Your task to perform on an android device: open device folders in google photos Image 0: 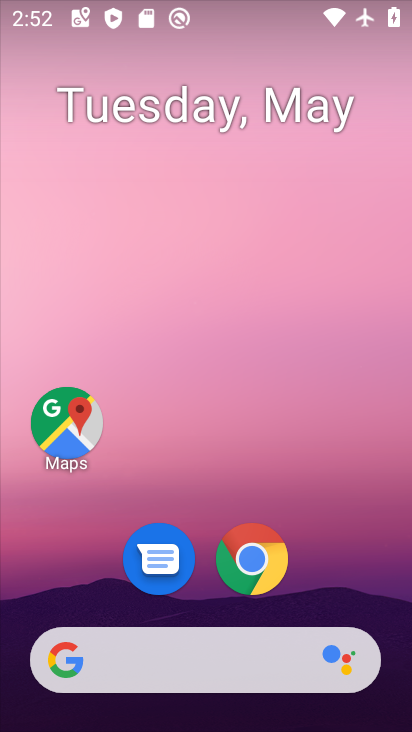
Step 0: drag from (132, 659) to (287, 172)
Your task to perform on an android device: open device folders in google photos Image 1: 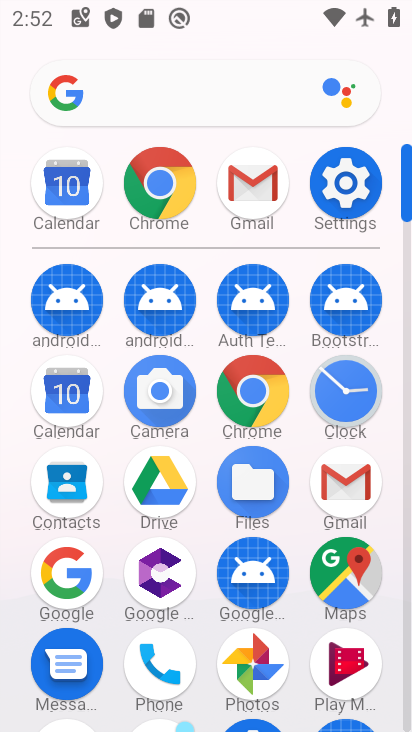
Step 1: click (259, 656)
Your task to perform on an android device: open device folders in google photos Image 2: 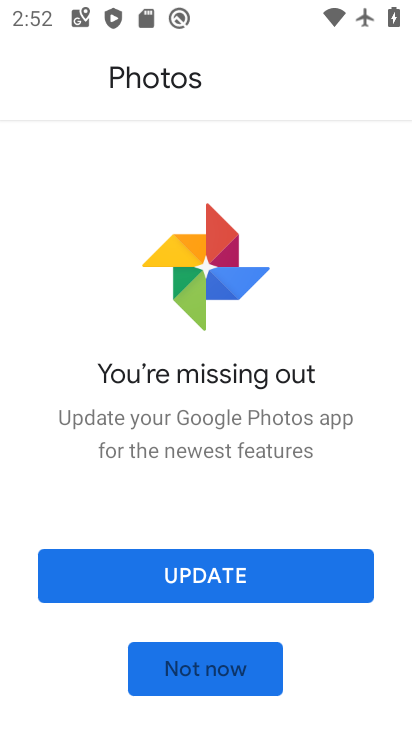
Step 2: click (223, 583)
Your task to perform on an android device: open device folders in google photos Image 3: 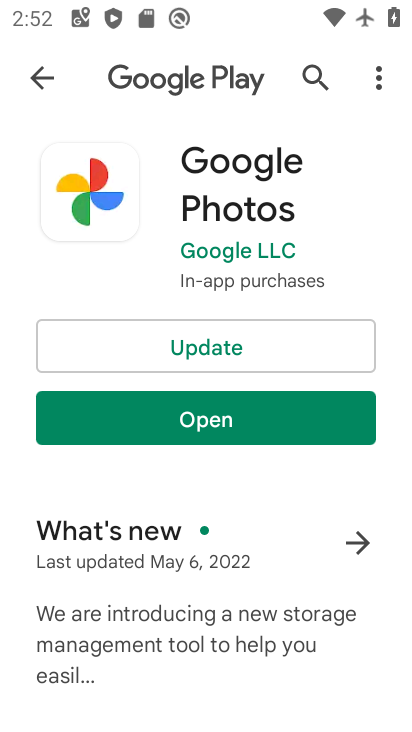
Step 3: click (219, 419)
Your task to perform on an android device: open device folders in google photos Image 4: 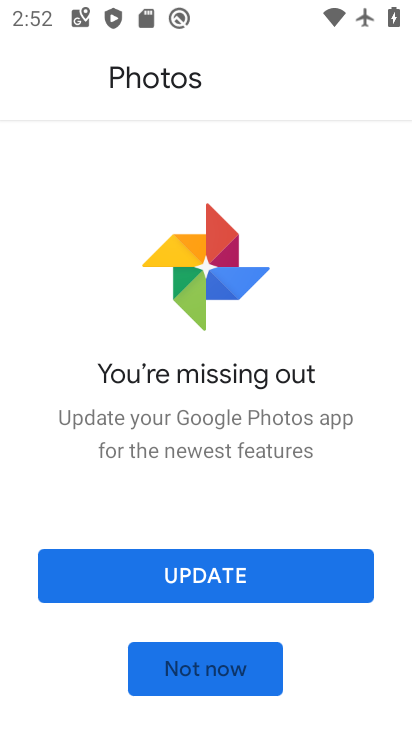
Step 4: click (204, 574)
Your task to perform on an android device: open device folders in google photos Image 5: 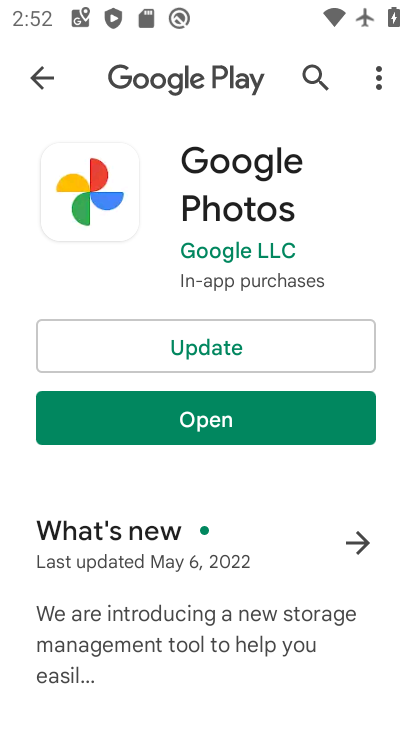
Step 5: click (179, 326)
Your task to perform on an android device: open device folders in google photos Image 6: 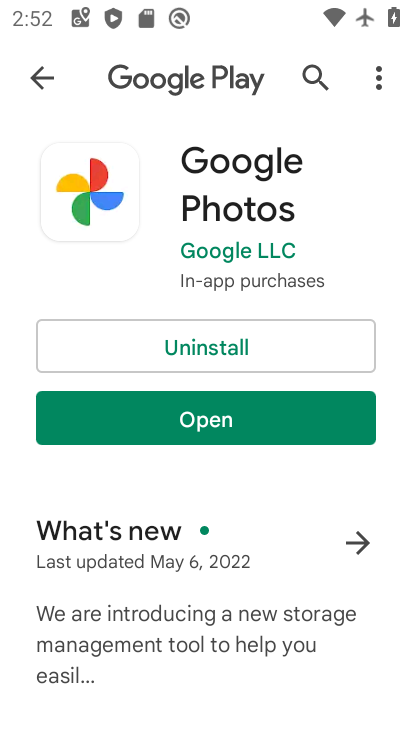
Step 6: click (223, 416)
Your task to perform on an android device: open device folders in google photos Image 7: 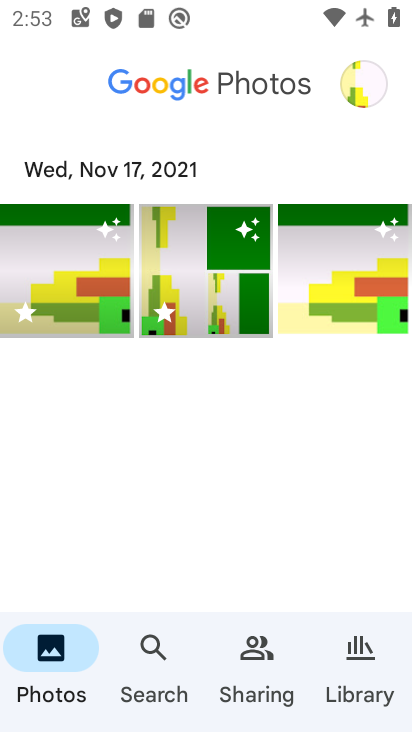
Step 7: task complete